Your task to perform on an android device: Show me the alarms in the clock app Image 0: 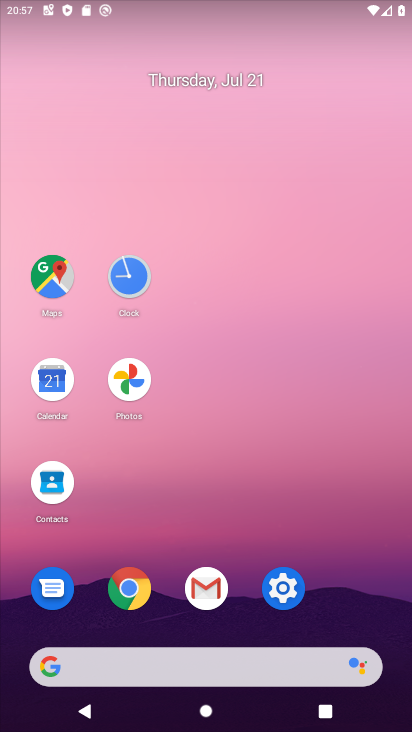
Step 0: click (126, 273)
Your task to perform on an android device: Show me the alarms in the clock app Image 1: 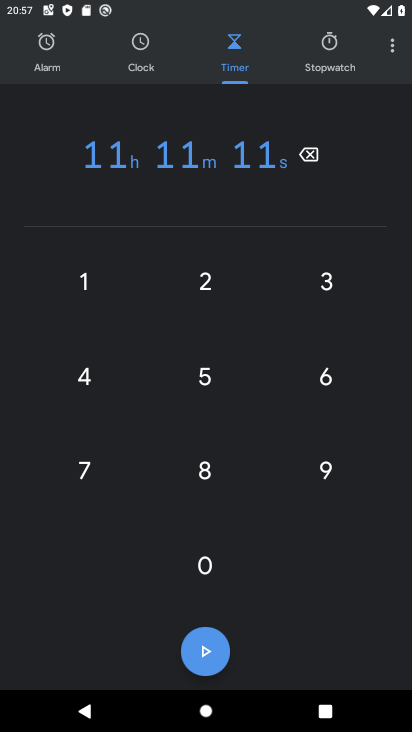
Step 1: click (43, 47)
Your task to perform on an android device: Show me the alarms in the clock app Image 2: 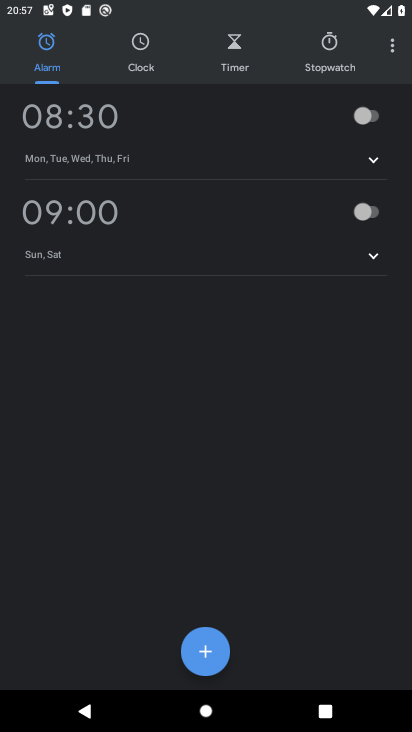
Step 2: task complete